Your task to perform on an android device: Open eBay Image 0: 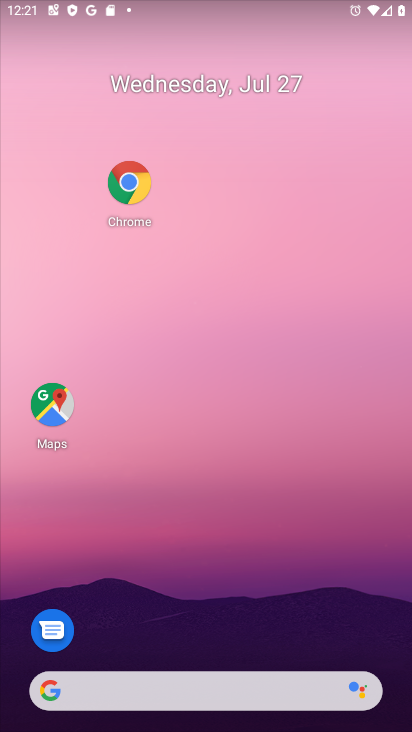
Step 0: click (178, 696)
Your task to perform on an android device: Open eBay Image 1: 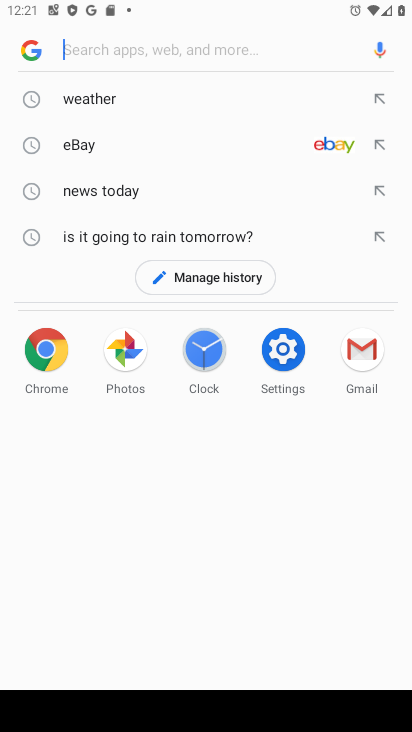
Step 1: click (338, 146)
Your task to perform on an android device: Open eBay Image 2: 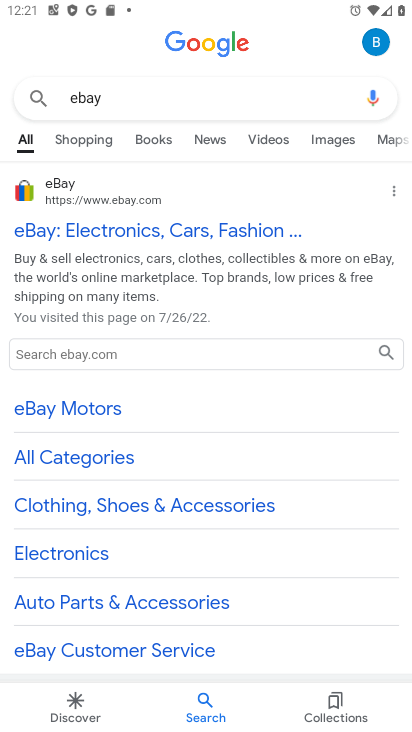
Step 2: click (98, 198)
Your task to perform on an android device: Open eBay Image 3: 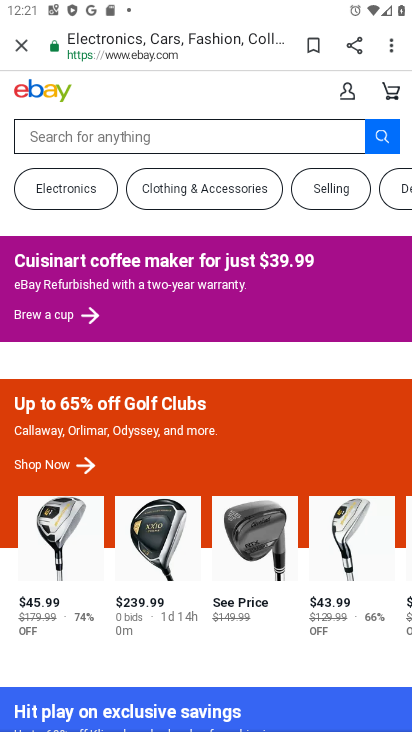
Step 3: task complete